Your task to perform on an android device: Open calendar and show me the fourth week of next month Image 0: 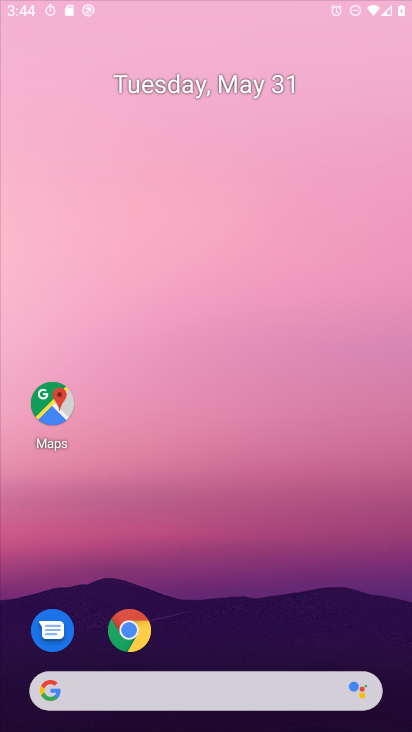
Step 0: drag from (310, 680) to (363, 9)
Your task to perform on an android device: Open calendar and show me the fourth week of next month Image 1: 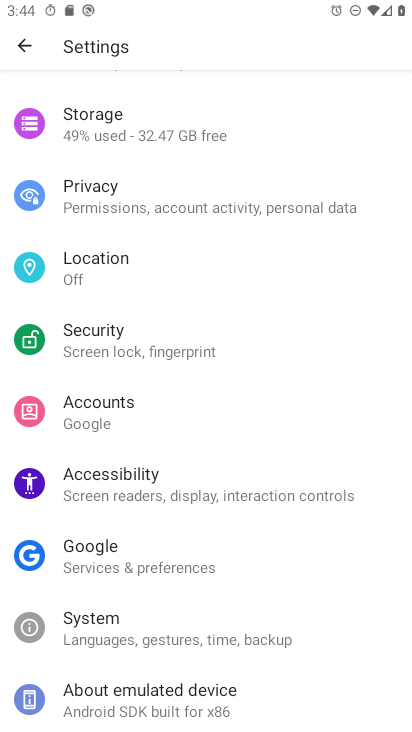
Step 1: press home button
Your task to perform on an android device: Open calendar and show me the fourth week of next month Image 2: 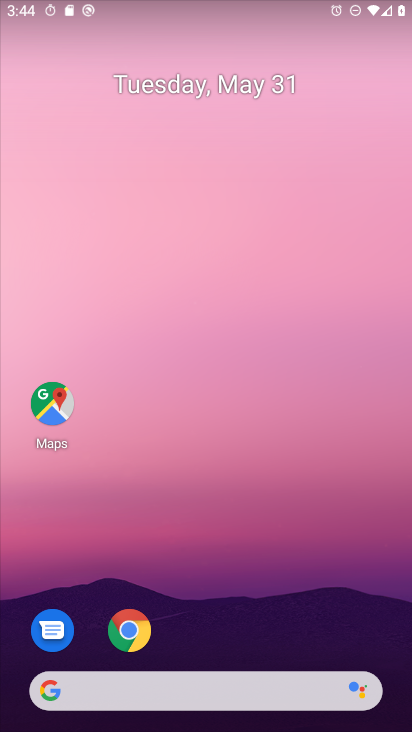
Step 2: drag from (301, 701) to (410, 8)
Your task to perform on an android device: Open calendar and show me the fourth week of next month Image 3: 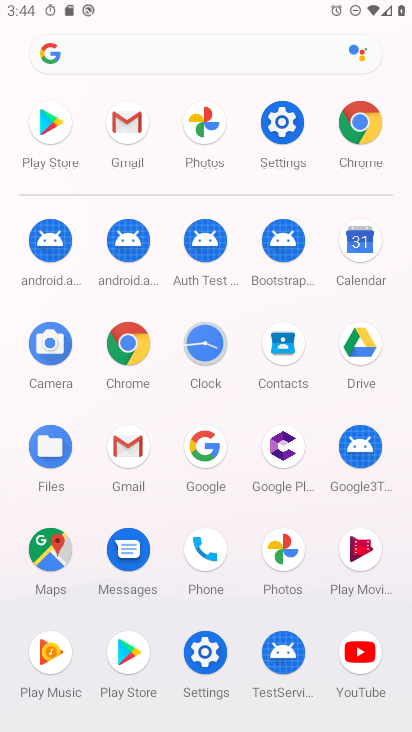
Step 3: click (371, 238)
Your task to perform on an android device: Open calendar and show me the fourth week of next month Image 4: 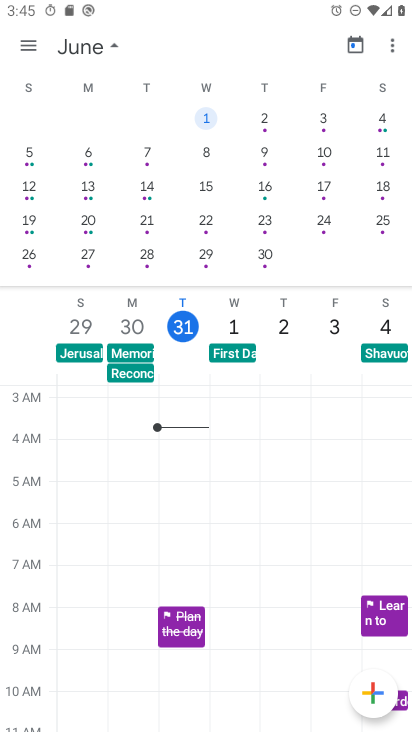
Step 4: click (208, 225)
Your task to perform on an android device: Open calendar and show me the fourth week of next month Image 5: 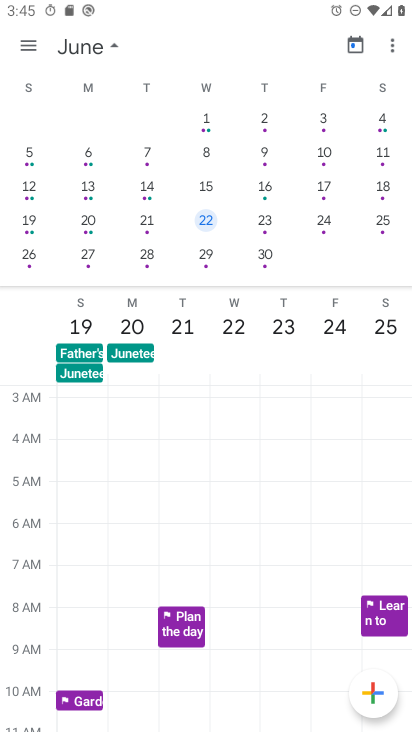
Step 5: task complete